Your task to perform on an android device: Open settings on Google Maps Image 0: 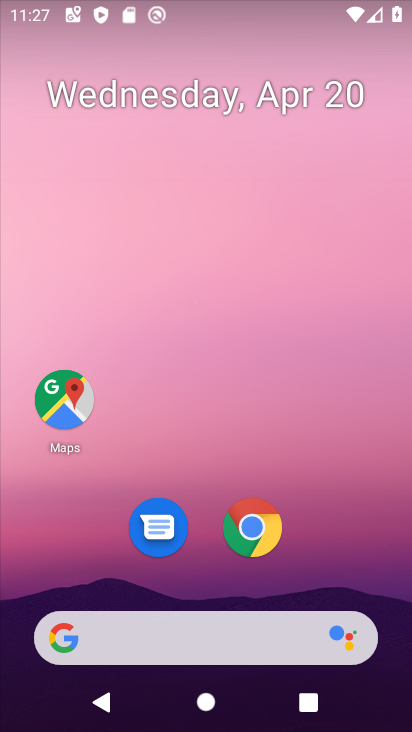
Step 0: click (61, 395)
Your task to perform on an android device: Open settings on Google Maps Image 1: 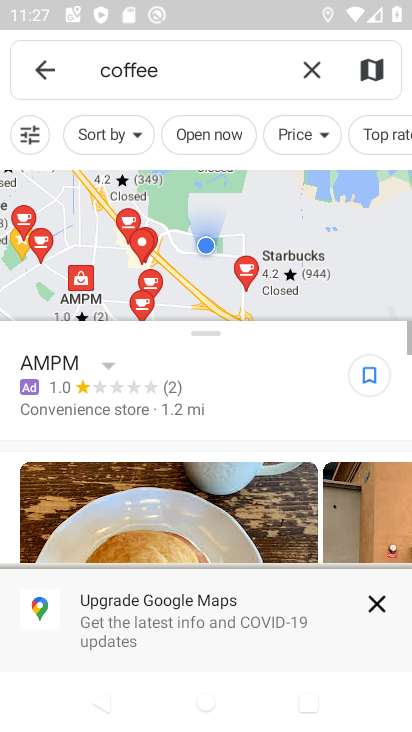
Step 1: click (43, 73)
Your task to perform on an android device: Open settings on Google Maps Image 2: 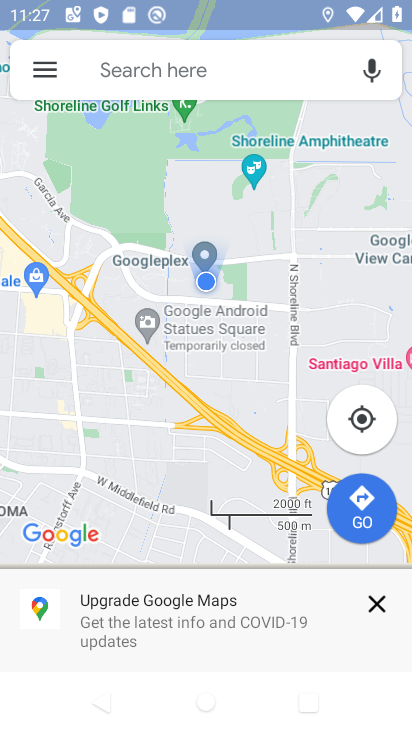
Step 2: click (43, 73)
Your task to perform on an android device: Open settings on Google Maps Image 3: 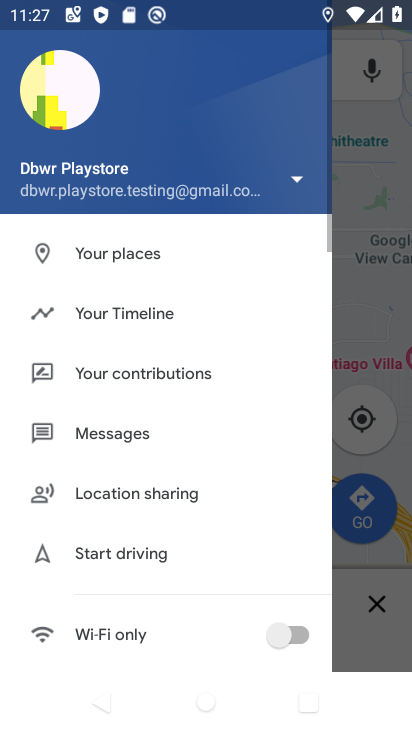
Step 3: drag from (147, 572) to (223, 49)
Your task to perform on an android device: Open settings on Google Maps Image 4: 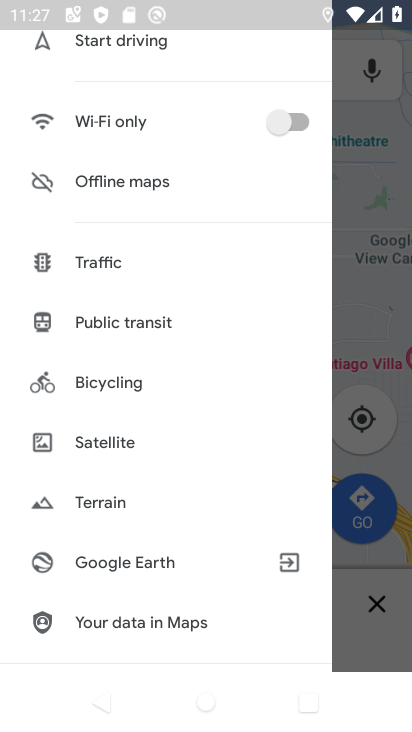
Step 4: drag from (106, 589) to (264, 123)
Your task to perform on an android device: Open settings on Google Maps Image 5: 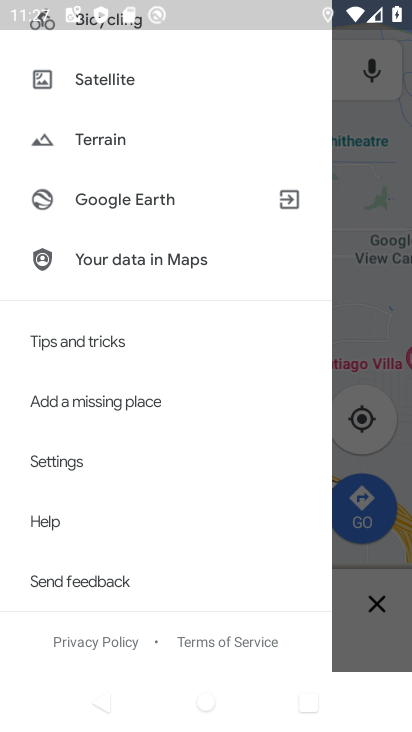
Step 5: click (70, 466)
Your task to perform on an android device: Open settings on Google Maps Image 6: 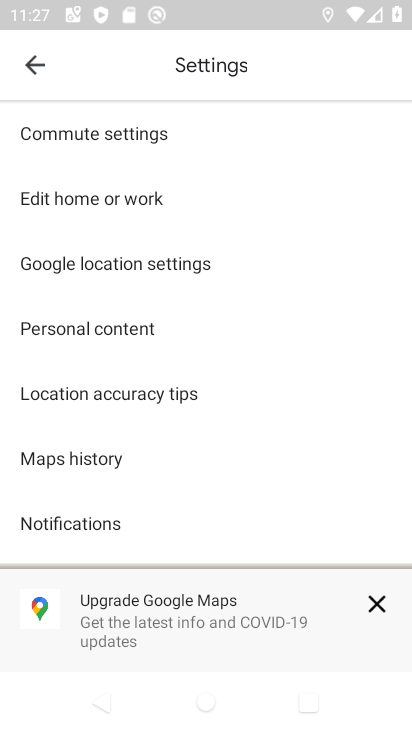
Step 6: task complete